Your task to perform on an android device: turn off improve location accuracy Image 0: 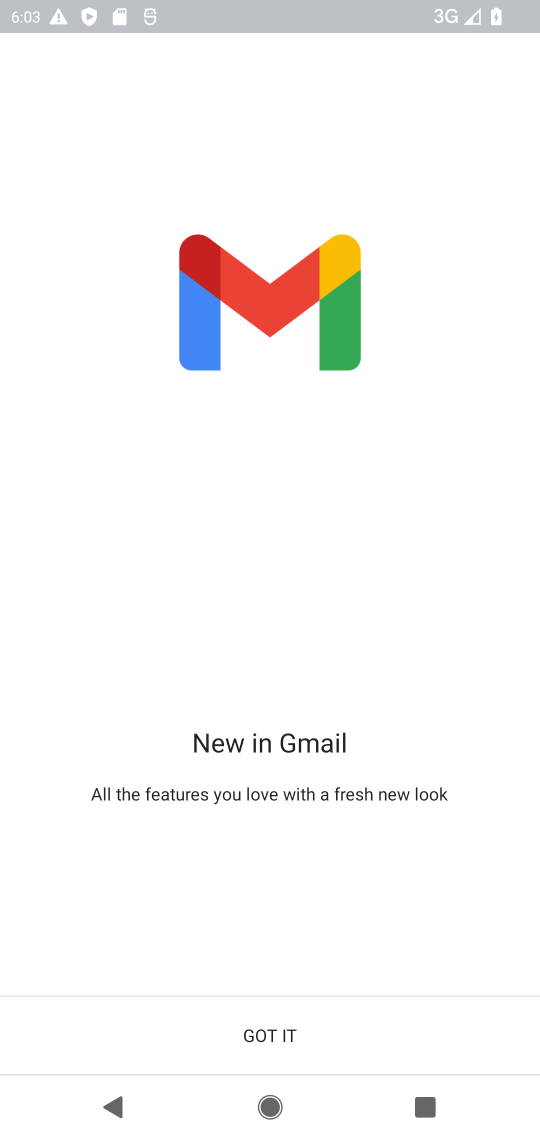
Step 0: press home button
Your task to perform on an android device: turn off improve location accuracy Image 1: 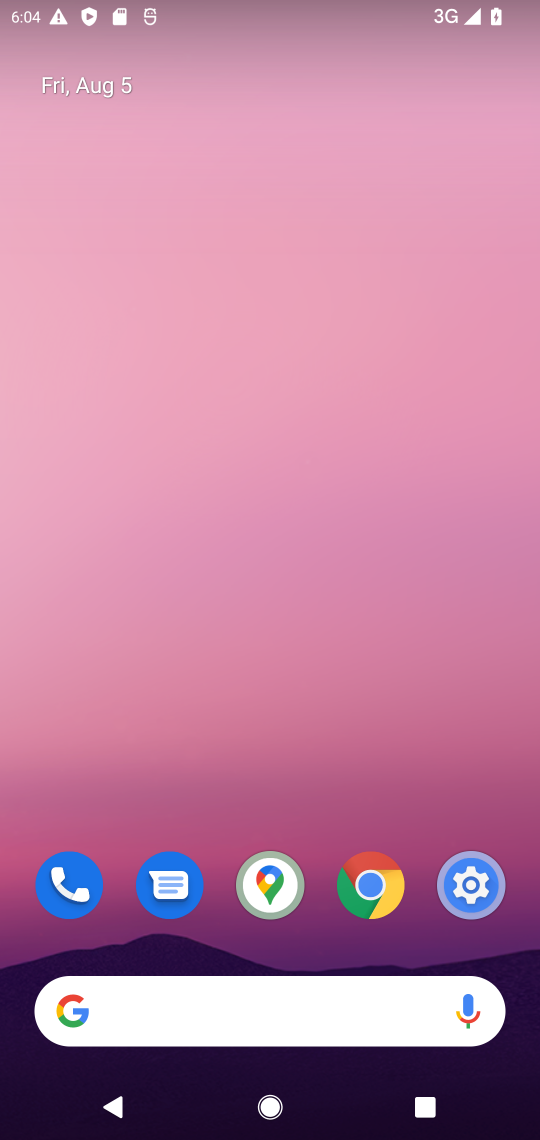
Step 1: drag from (217, 714) to (307, 11)
Your task to perform on an android device: turn off improve location accuracy Image 2: 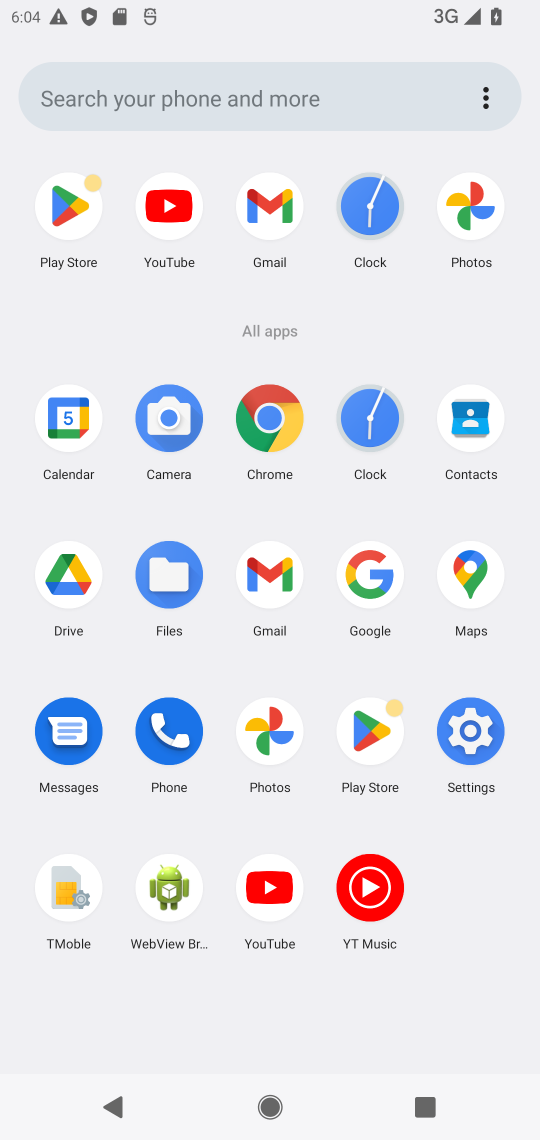
Step 2: click (463, 749)
Your task to perform on an android device: turn off improve location accuracy Image 3: 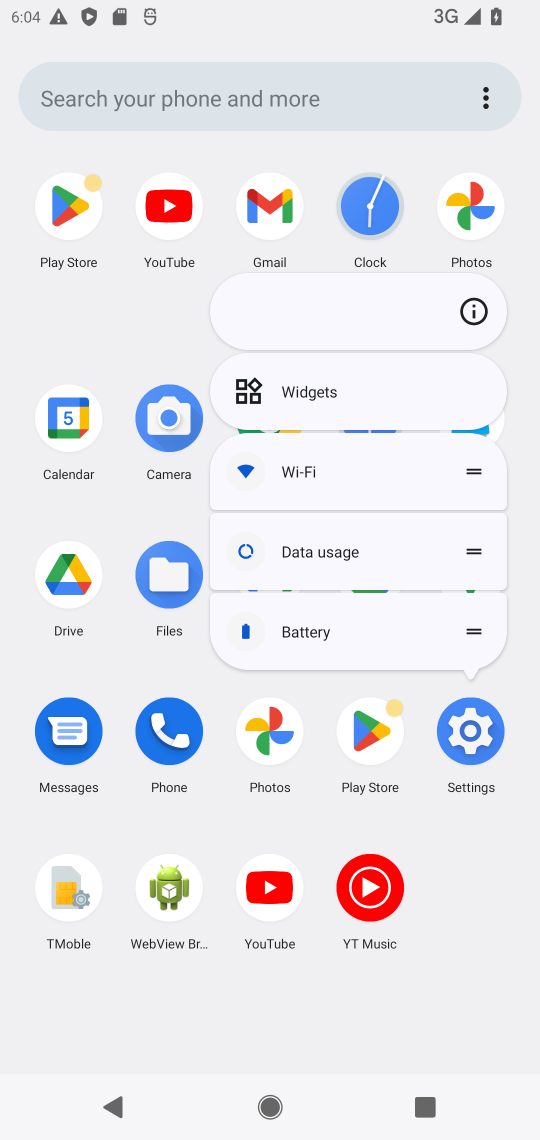
Step 3: click (463, 749)
Your task to perform on an android device: turn off improve location accuracy Image 4: 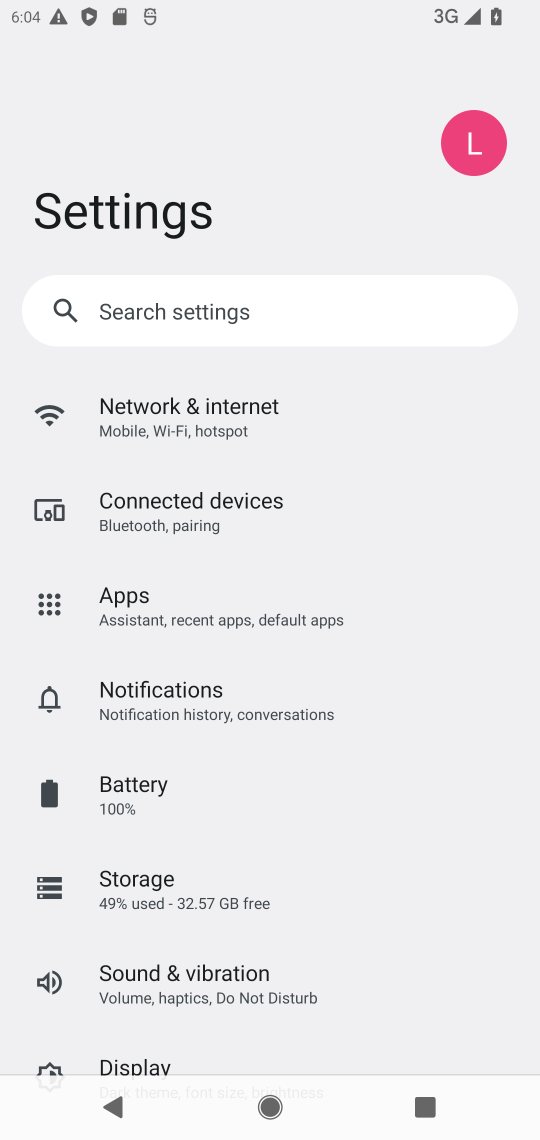
Step 4: drag from (201, 933) to (245, 705)
Your task to perform on an android device: turn off improve location accuracy Image 5: 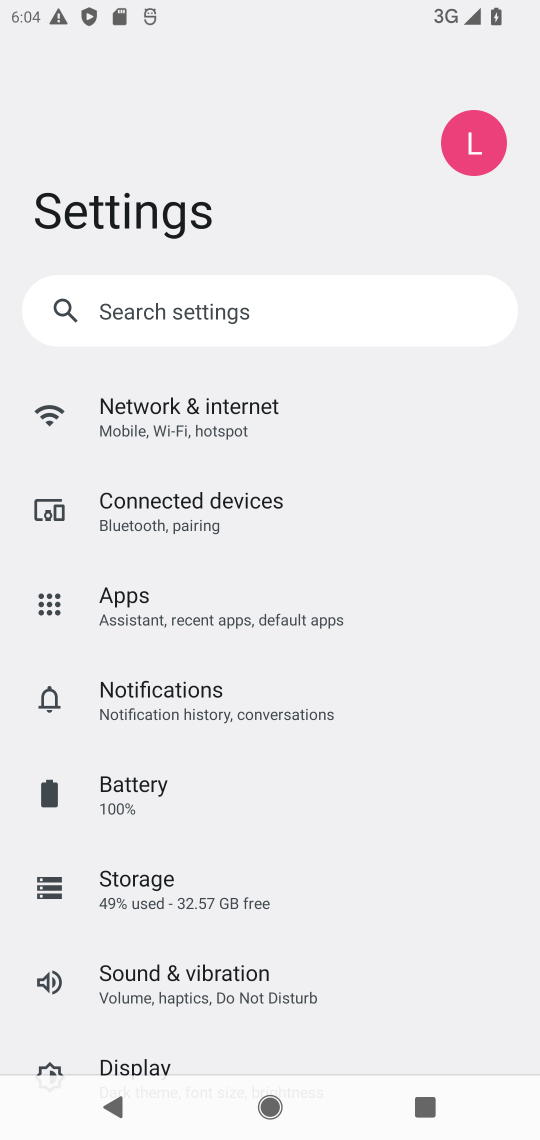
Step 5: drag from (168, 989) to (237, 556)
Your task to perform on an android device: turn off improve location accuracy Image 6: 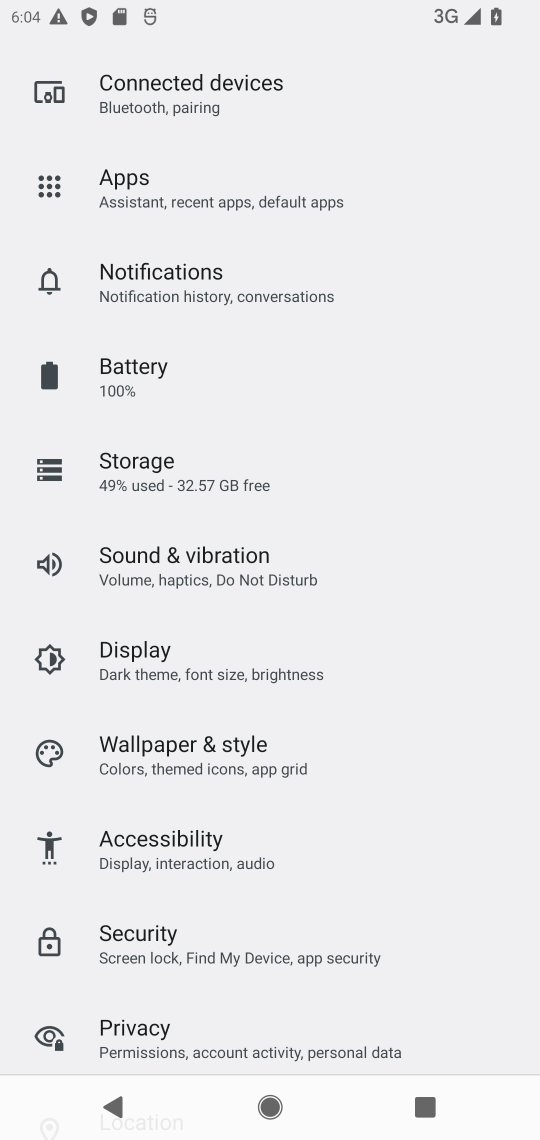
Step 6: drag from (164, 940) to (171, 476)
Your task to perform on an android device: turn off improve location accuracy Image 7: 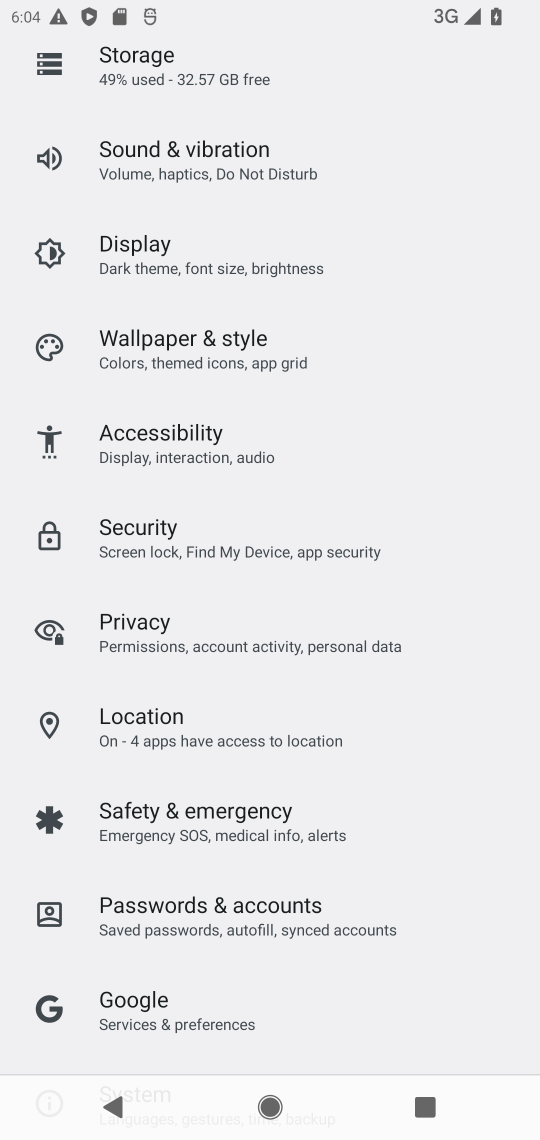
Step 7: click (154, 742)
Your task to perform on an android device: turn off improve location accuracy Image 8: 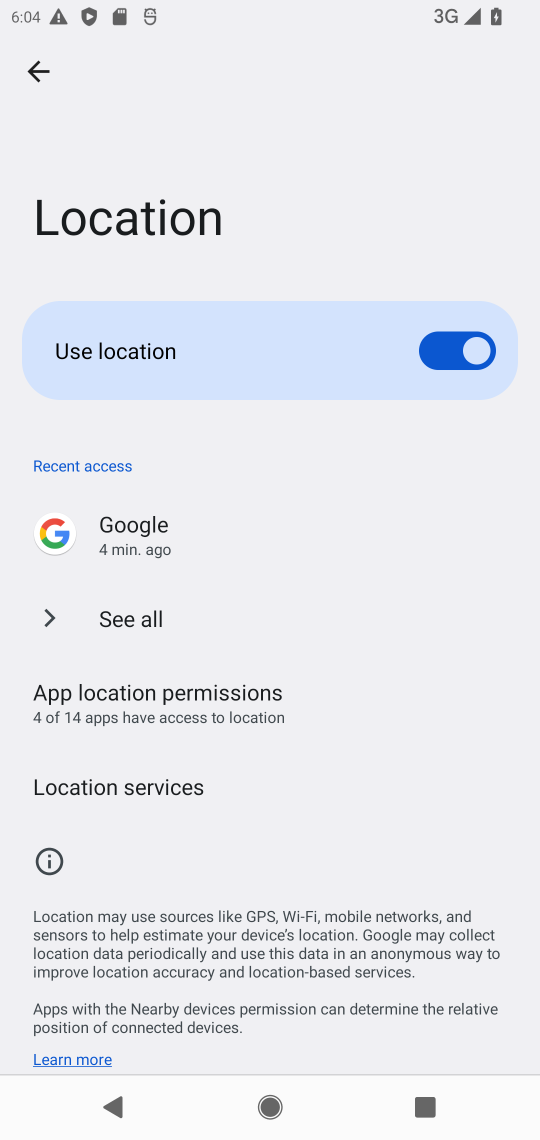
Step 8: click (138, 791)
Your task to perform on an android device: turn off improve location accuracy Image 9: 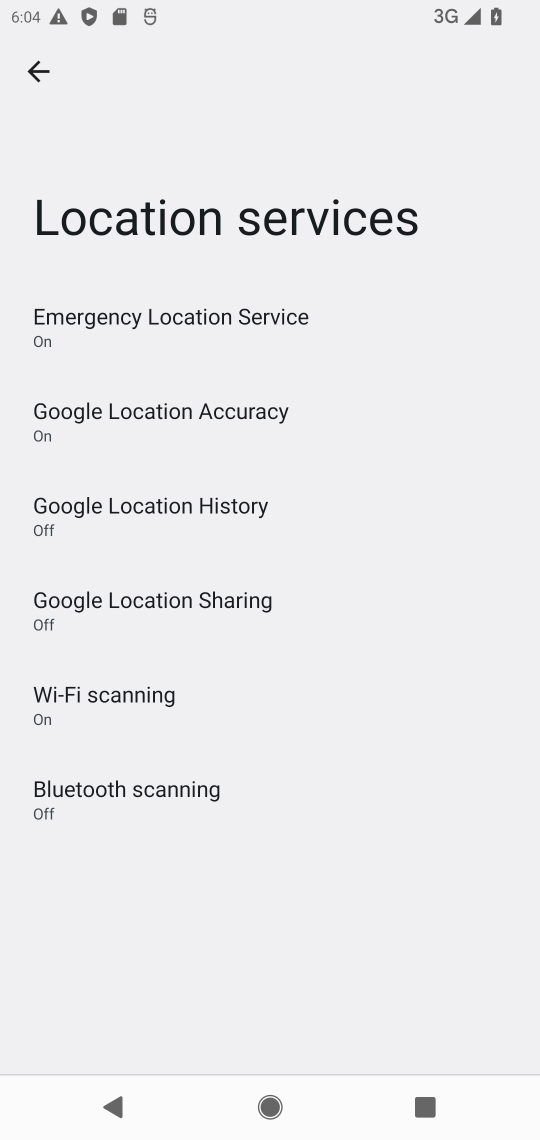
Step 9: click (166, 421)
Your task to perform on an android device: turn off improve location accuracy Image 10: 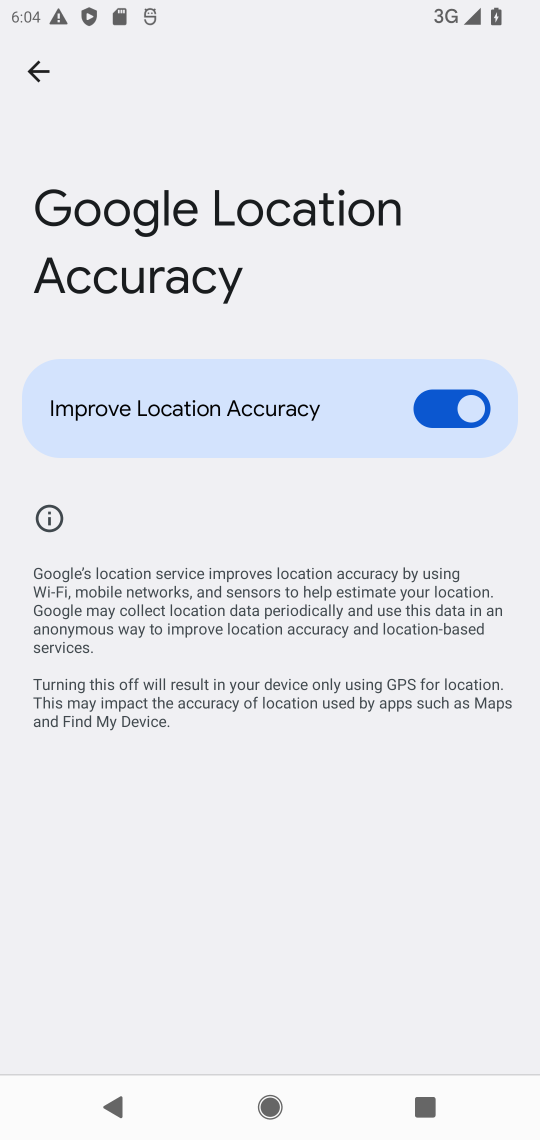
Step 10: click (385, 426)
Your task to perform on an android device: turn off improve location accuracy Image 11: 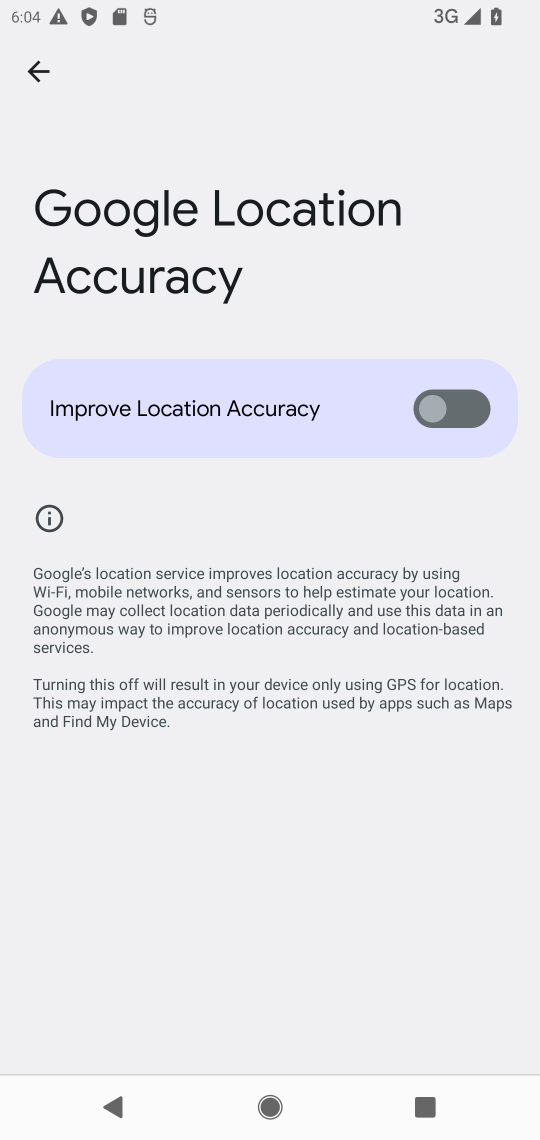
Step 11: task complete